Your task to perform on an android device: toggle data saver in the chrome app Image 0: 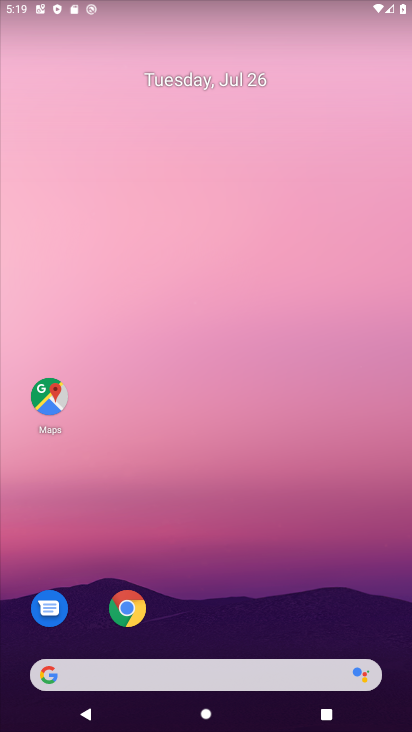
Step 0: press home button
Your task to perform on an android device: toggle data saver in the chrome app Image 1: 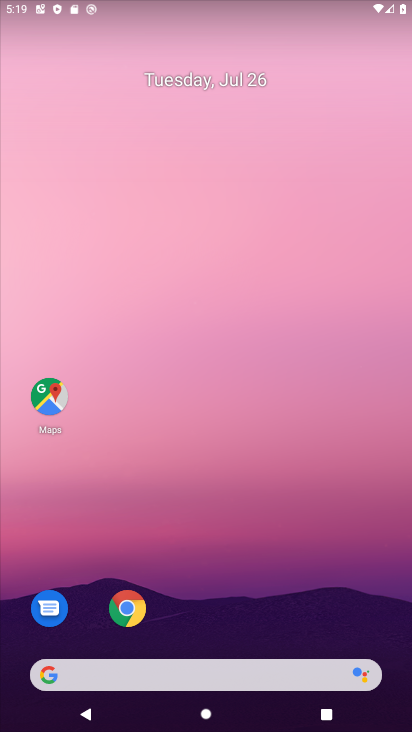
Step 1: drag from (301, 553) to (387, 99)
Your task to perform on an android device: toggle data saver in the chrome app Image 2: 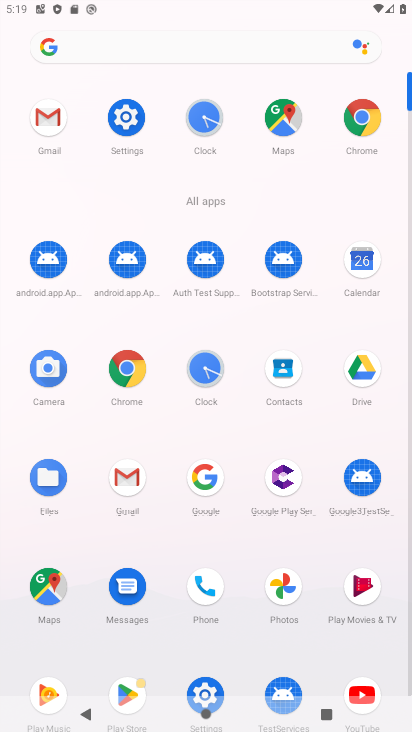
Step 2: click (368, 117)
Your task to perform on an android device: toggle data saver in the chrome app Image 3: 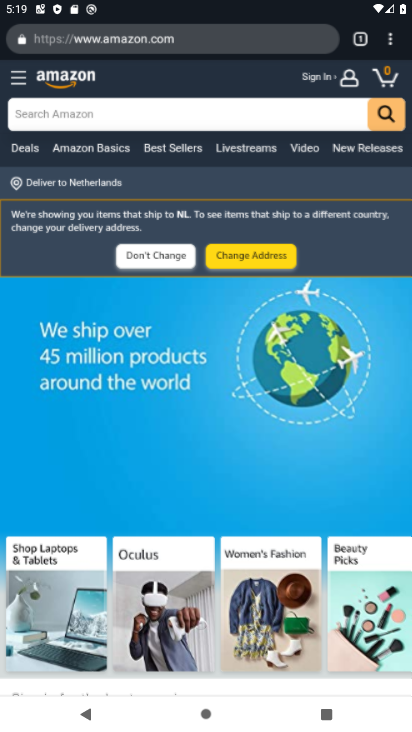
Step 3: drag from (391, 41) to (251, 469)
Your task to perform on an android device: toggle data saver in the chrome app Image 4: 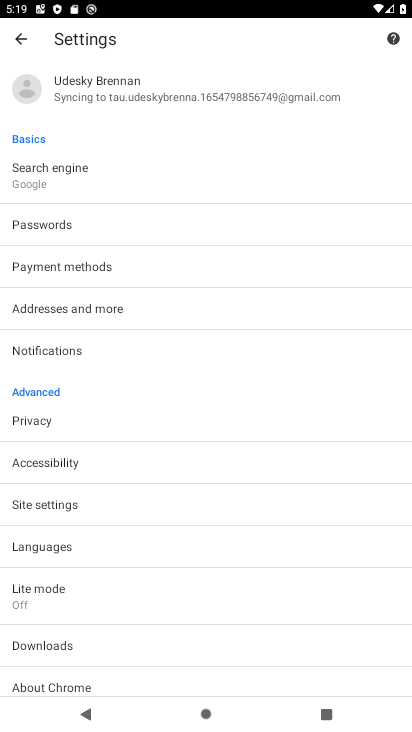
Step 4: click (33, 594)
Your task to perform on an android device: toggle data saver in the chrome app Image 5: 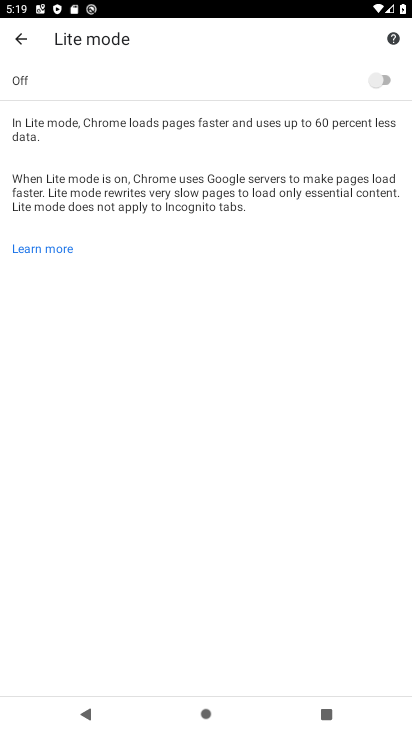
Step 5: click (375, 80)
Your task to perform on an android device: toggle data saver in the chrome app Image 6: 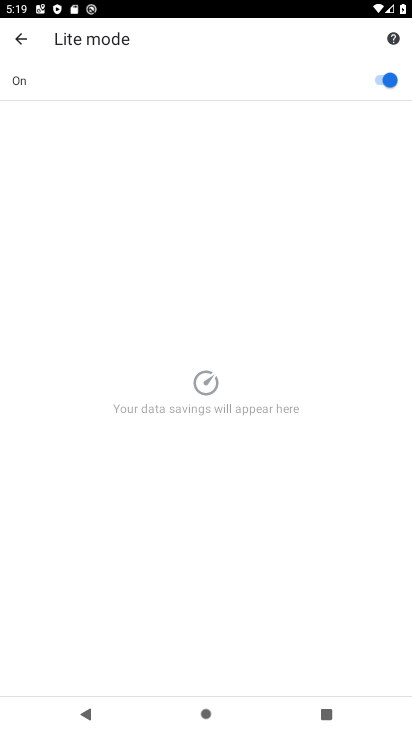
Step 6: task complete